Your task to perform on an android device: remove spam from my inbox in the gmail app Image 0: 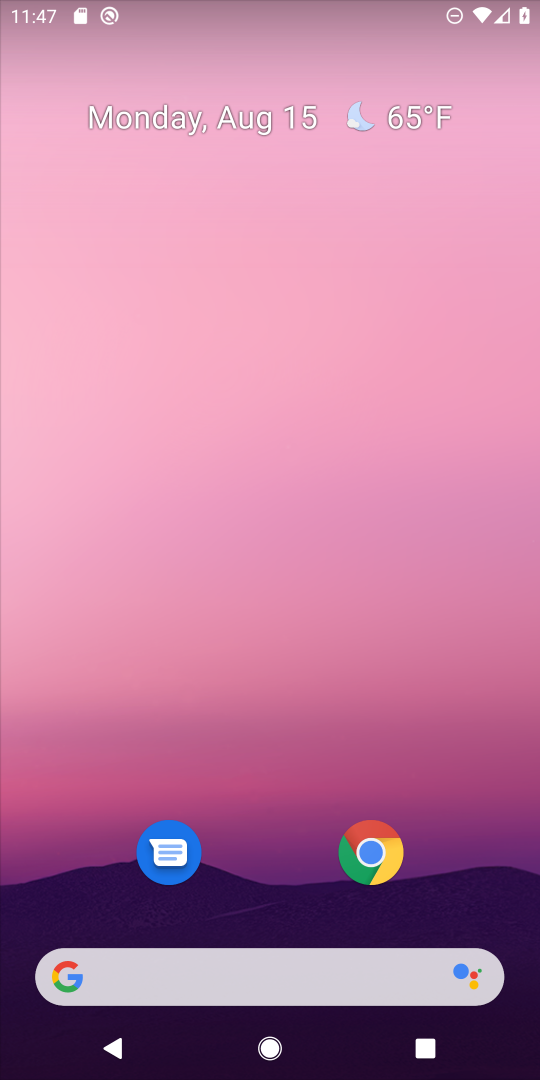
Step 0: drag from (227, 932) to (380, 35)
Your task to perform on an android device: remove spam from my inbox in the gmail app Image 1: 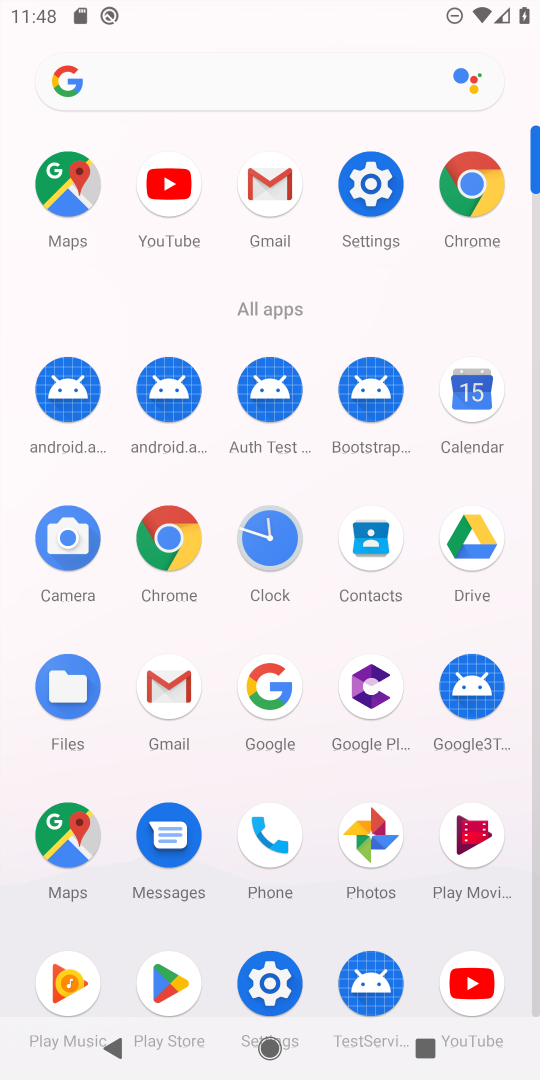
Step 1: click (287, 198)
Your task to perform on an android device: remove spam from my inbox in the gmail app Image 2: 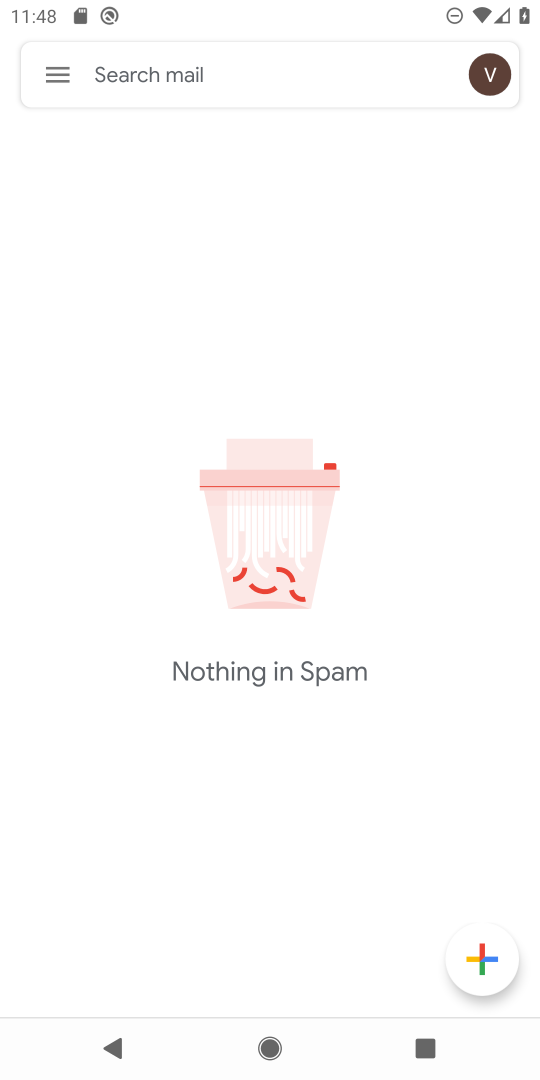
Step 2: click (62, 73)
Your task to perform on an android device: remove spam from my inbox in the gmail app Image 3: 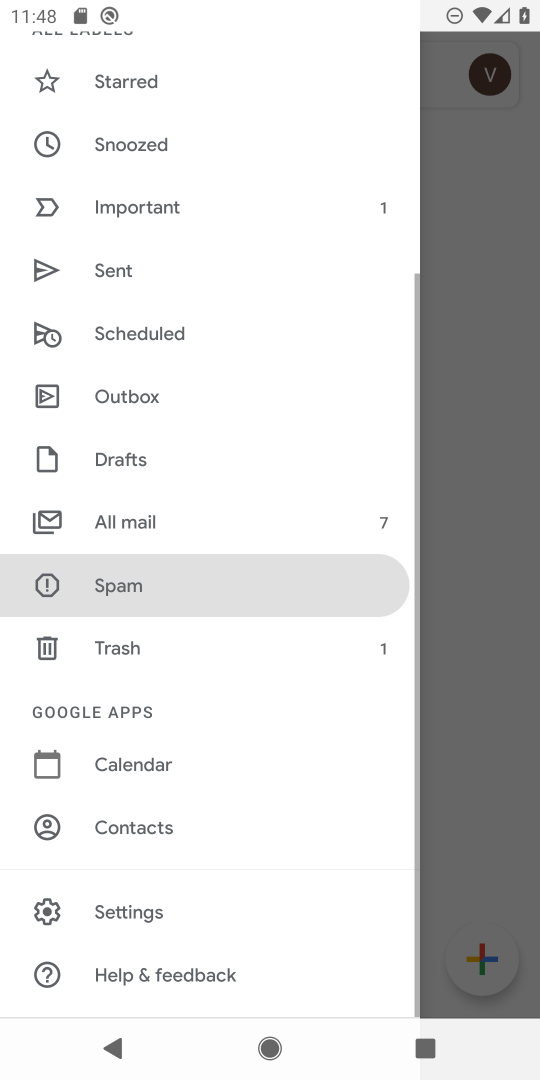
Step 3: click (457, 350)
Your task to perform on an android device: remove spam from my inbox in the gmail app Image 4: 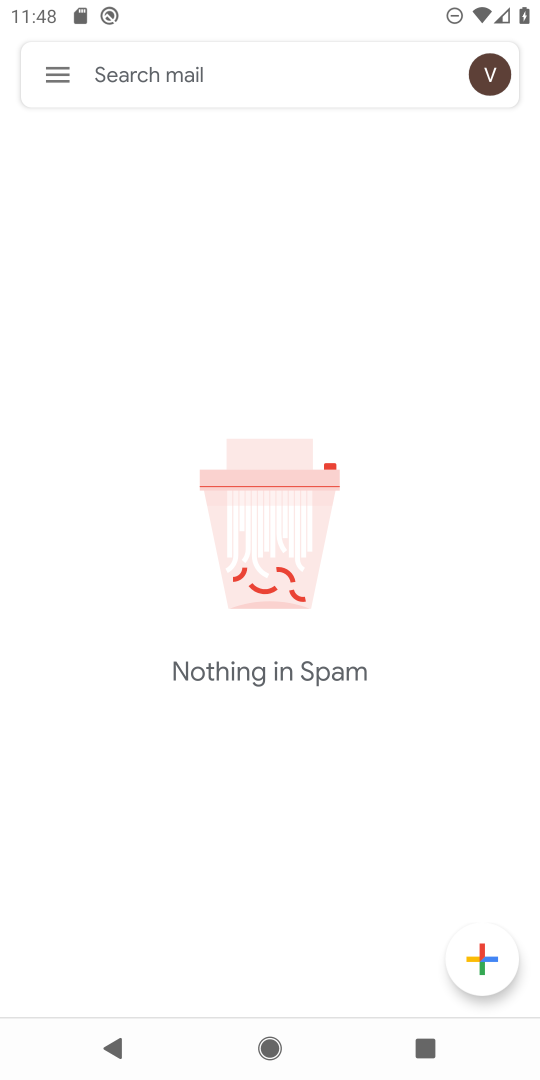
Step 4: task complete